Your task to perform on an android device: Open sound settings Image 0: 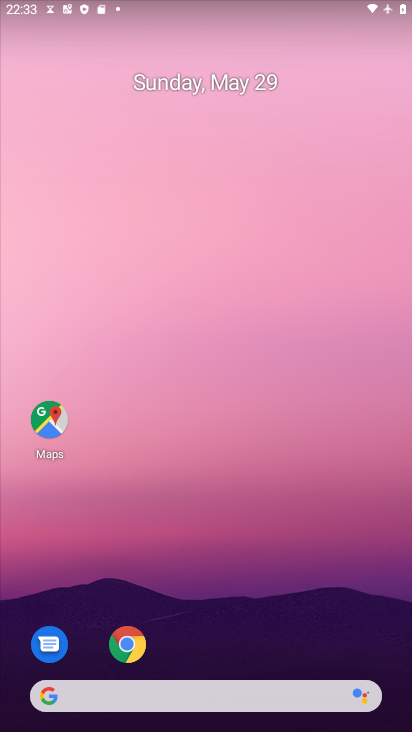
Step 0: drag from (277, 632) to (235, 352)
Your task to perform on an android device: Open sound settings Image 1: 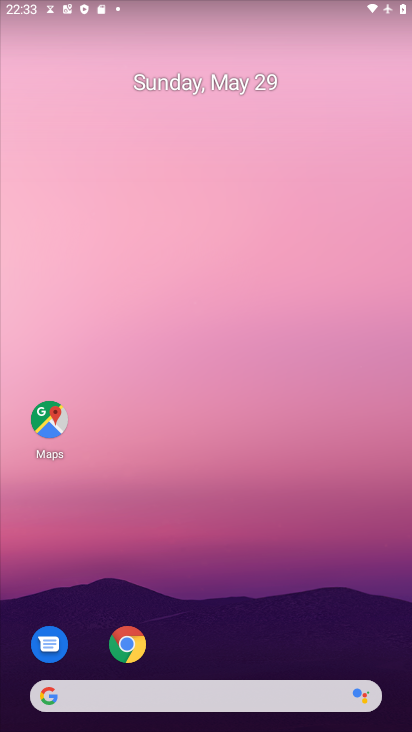
Step 1: drag from (234, 662) to (184, 259)
Your task to perform on an android device: Open sound settings Image 2: 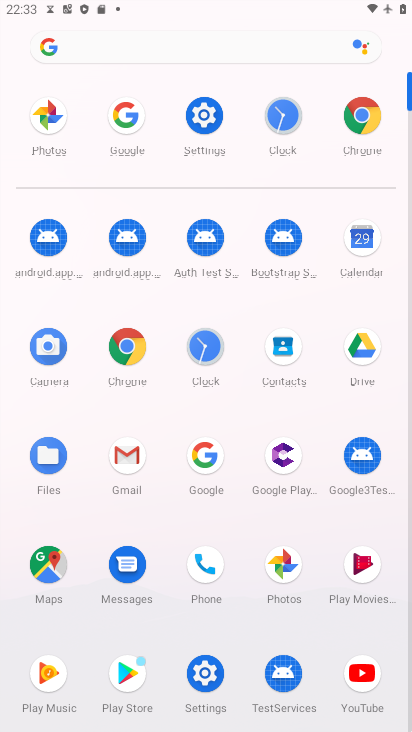
Step 2: click (201, 107)
Your task to perform on an android device: Open sound settings Image 3: 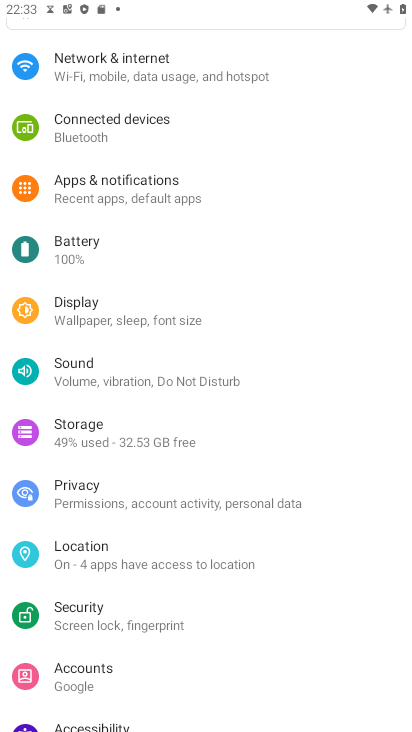
Step 3: click (113, 382)
Your task to perform on an android device: Open sound settings Image 4: 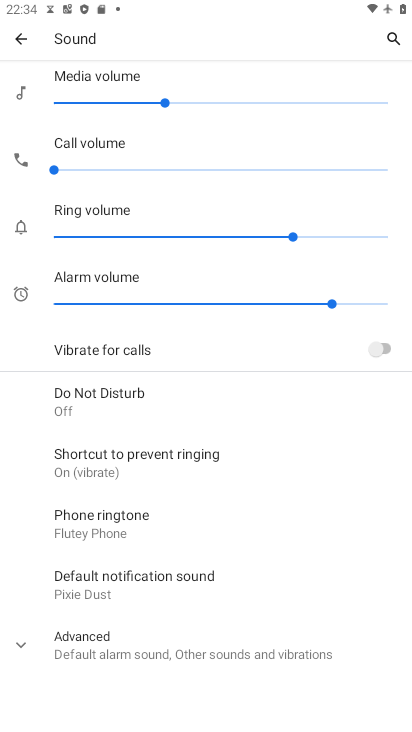
Step 4: task complete